Your task to perform on an android device: Go to internet settings Image 0: 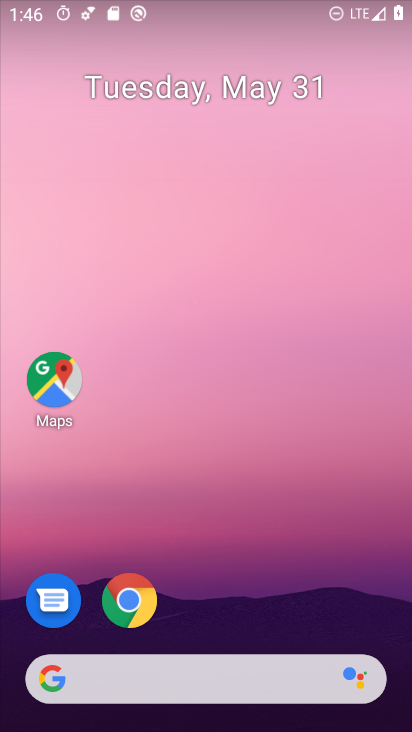
Step 0: drag from (245, 720) to (255, 53)
Your task to perform on an android device: Go to internet settings Image 1: 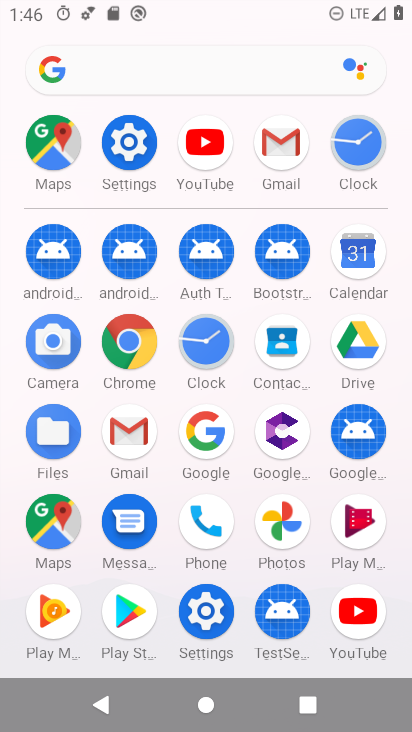
Step 1: click (136, 139)
Your task to perform on an android device: Go to internet settings Image 2: 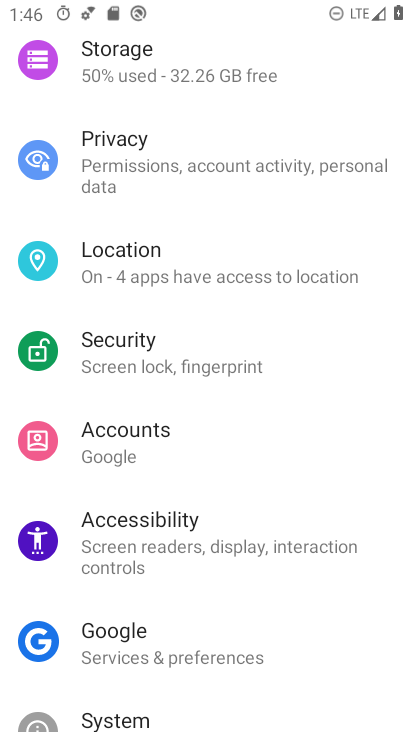
Step 2: drag from (292, 91) to (289, 552)
Your task to perform on an android device: Go to internet settings Image 3: 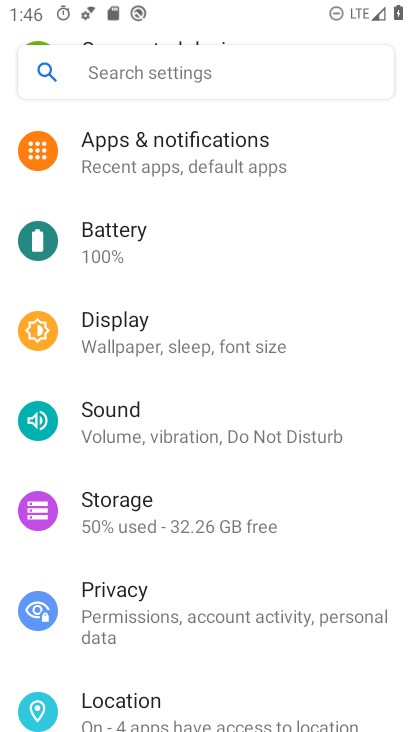
Step 3: drag from (298, 144) to (295, 596)
Your task to perform on an android device: Go to internet settings Image 4: 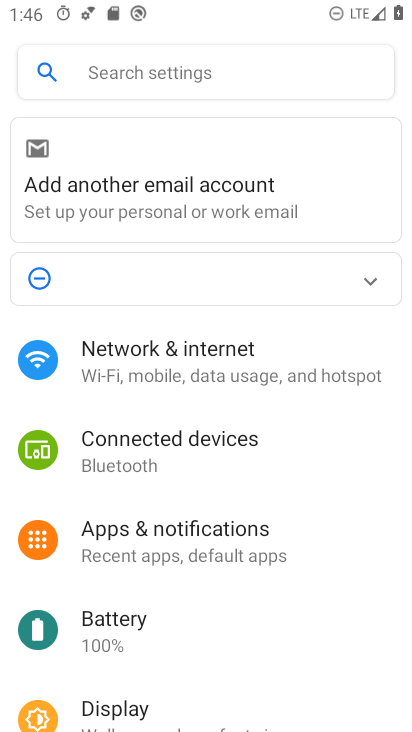
Step 4: click (165, 361)
Your task to perform on an android device: Go to internet settings Image 5: 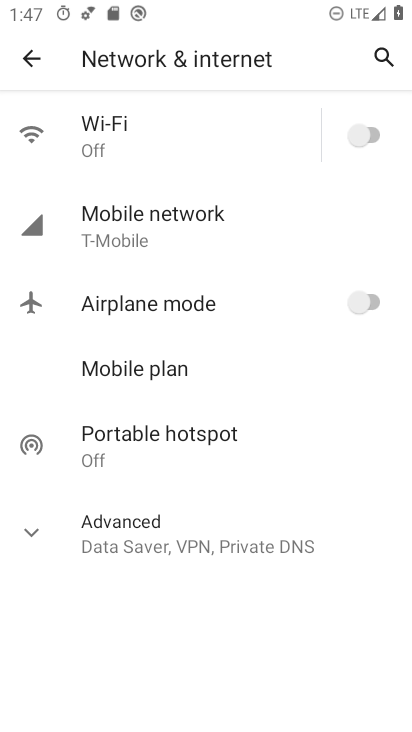
Step 5: task complete